Your task to perform on an android device: open device folders in google photos Image 0: 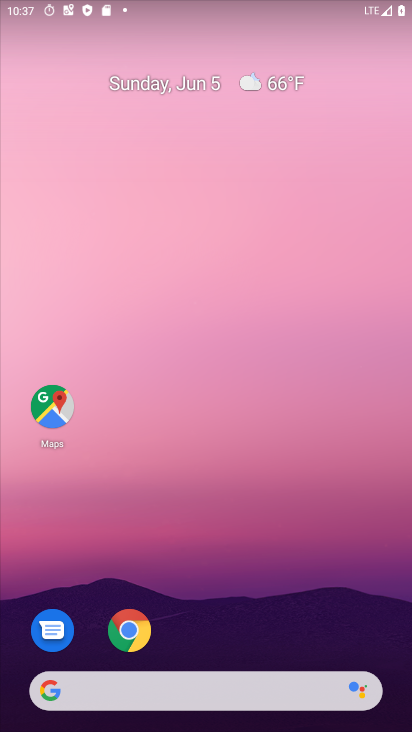
Step 0: drag from (227, 727) to (230, 94)
Your task to perform on an android device: open device folders in google photos Image 1: 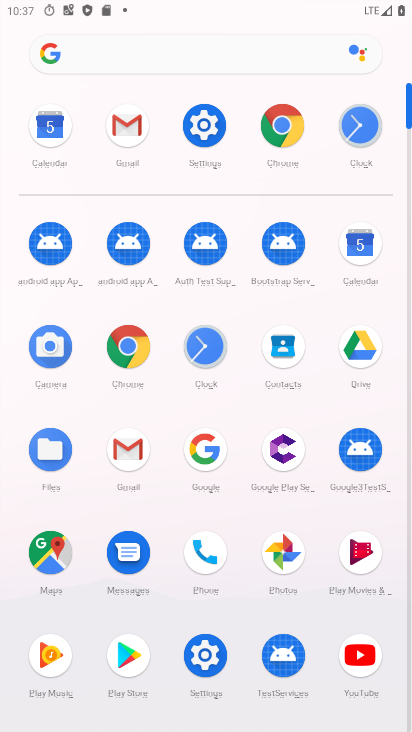
Step 1: click (287, 548)
Your task to perform on an android device: open device folders in google photos Image 2: 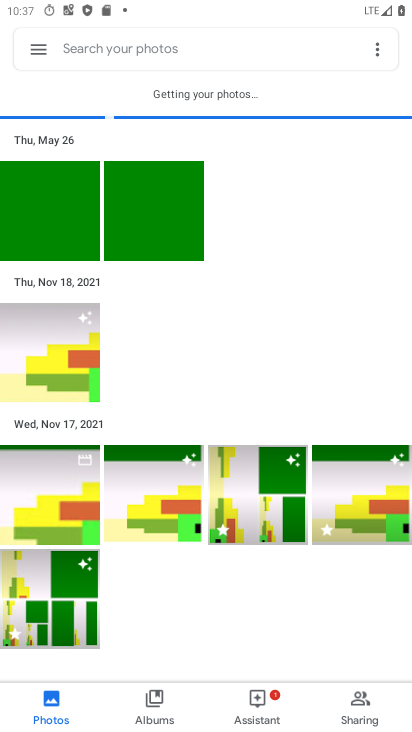
Step 2: click (40, 49)
Your task to perform on an android device: open device folders in google photos Image 3: 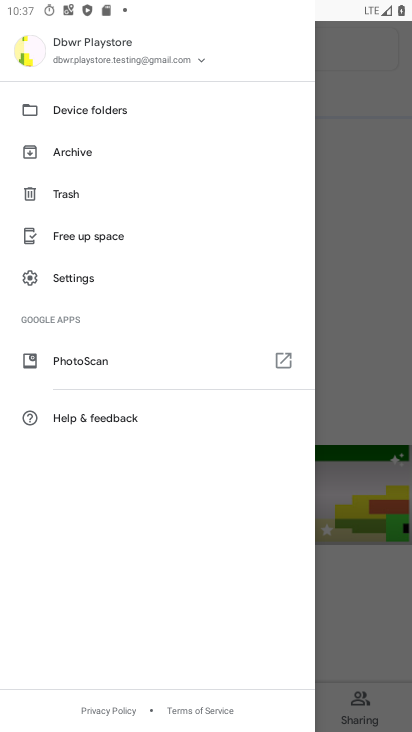
Step 3: click (85, 109)
Your task to perform on an android device: open device folders in google photos Image 4: 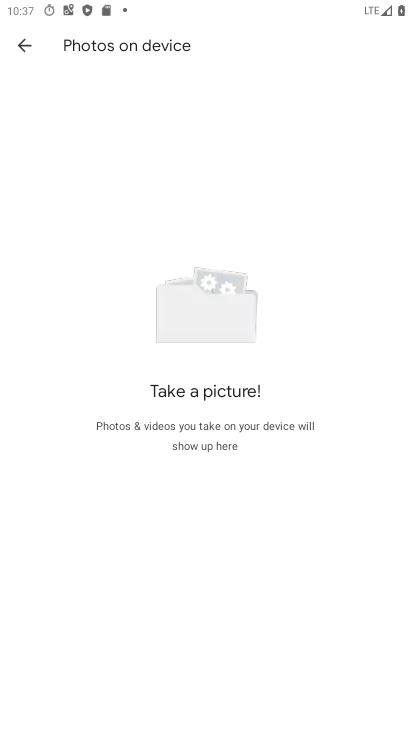
Step 4: task complete